Your task to perform on an android device: Go to Wikipedia Image 0: 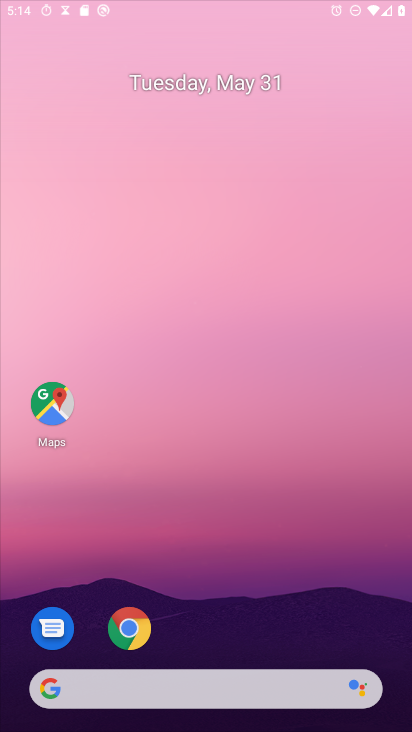
Step 0: drag from (289, 196) to (296, 41)
Your task to perform on an android device: Go to Wikipedia Image 1: 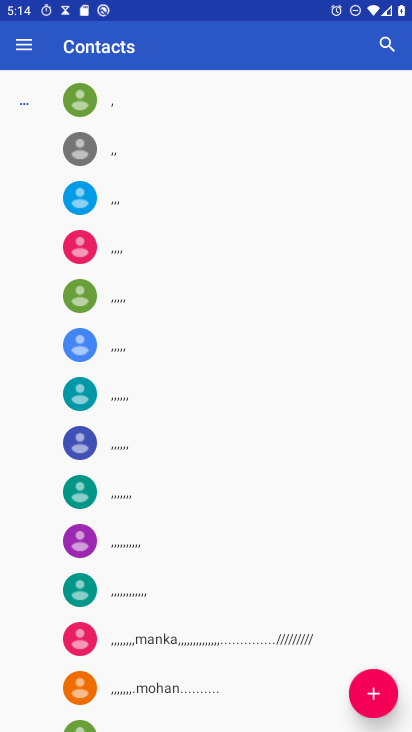
Step 1: press home button
Your task to perform on an android device: Go to Wikipedia Image 2: 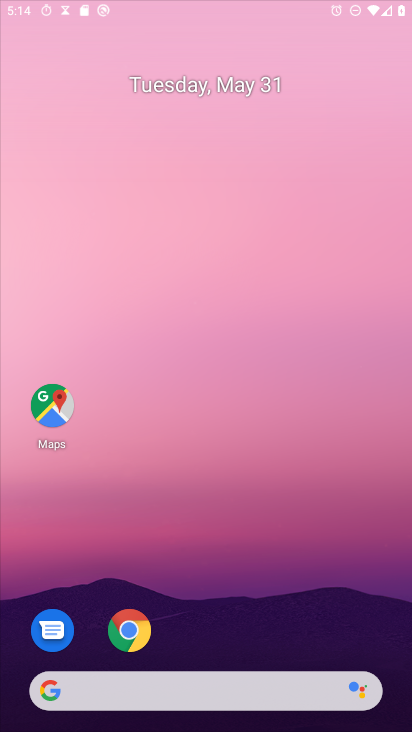
Step 2: drag from (290, 667) to (301, 37)
Your task to perform on an android device: Go to Wikipedia Image 3: 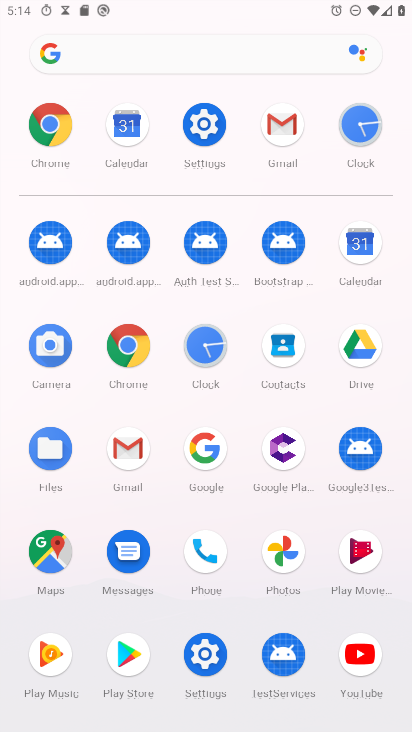
Step 3: click (124, 365)
Your task to perform on an android device: Go to Wikipedia Image 4: 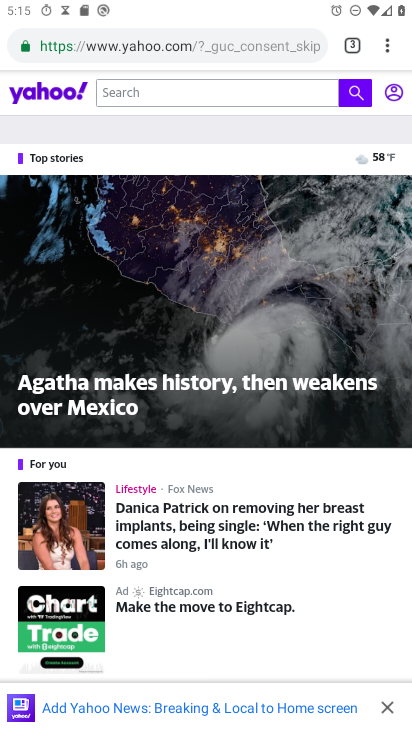
Step 4: click (384, 49)
Your task to perform on an android device: Go to Wikipedia Image 5: 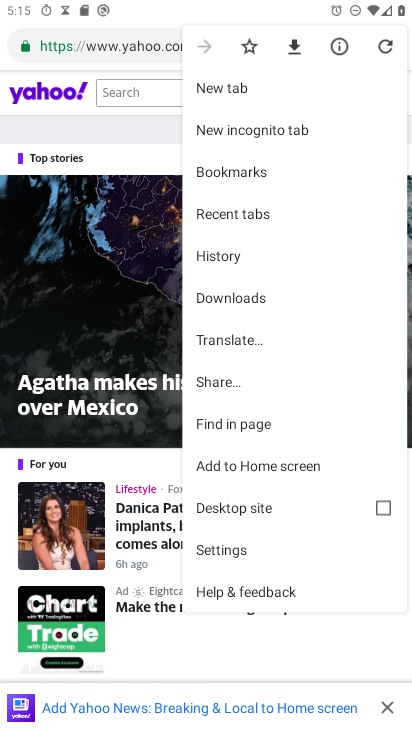
Step 5: click (251, 95)
Your task to perform on an android device: Go to Wikipedia Image 6: 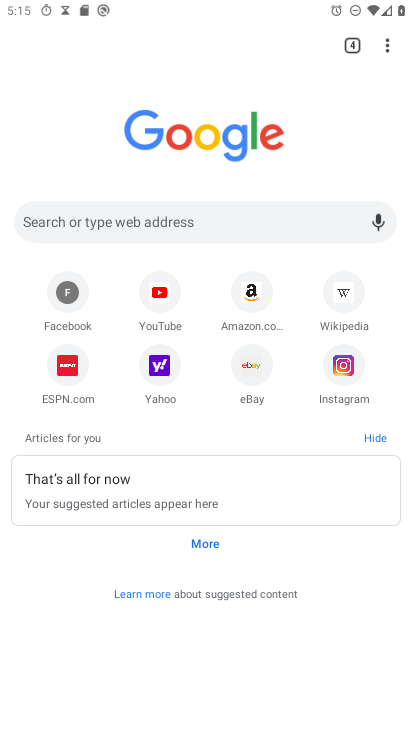
Step 6: click (313, 302)
Your task to perform on an android device: Go to Wikipedia Image 7: 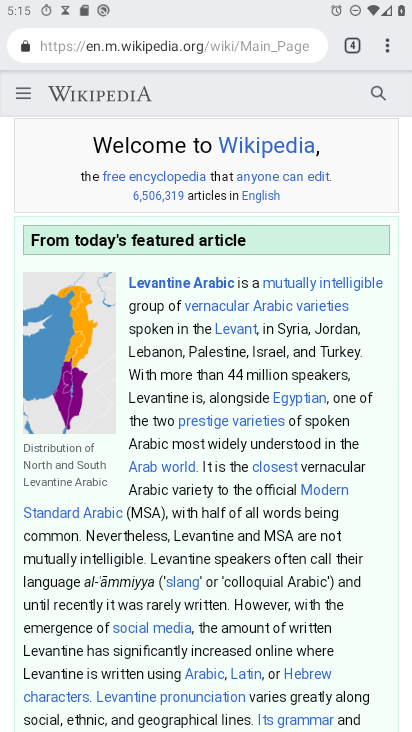
Step 7: task complete